Your task to perform on an android device: Go to Yahoo.com Image 0: 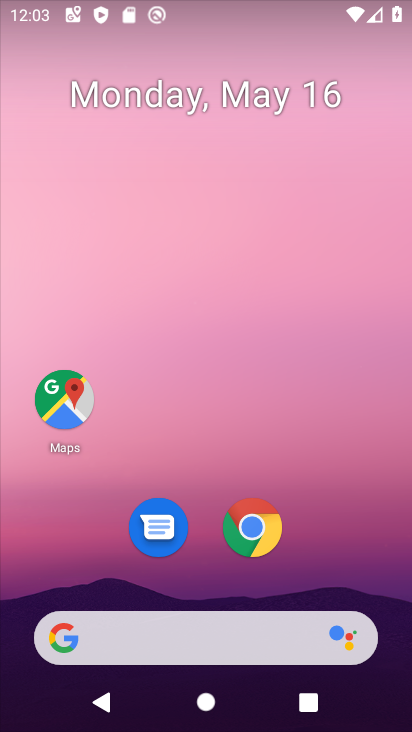
Step 0: click (253, 524)
Your task to perform on an android device: Go to Yahoo.com Image 1: 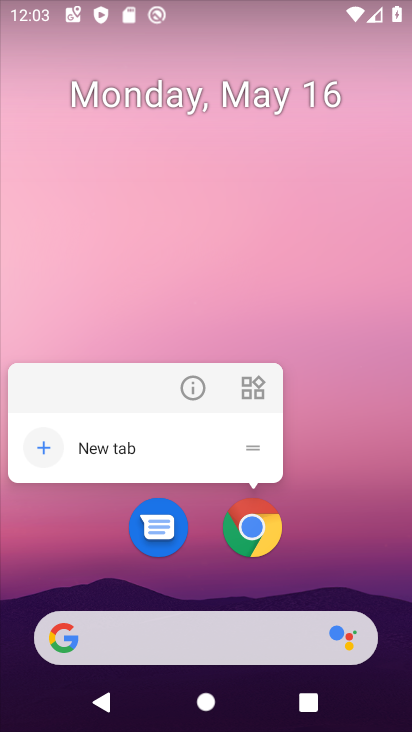
Step 1: click (265, 543)
Your task to perform on an android device: Go to Yahoo.com Image 2: 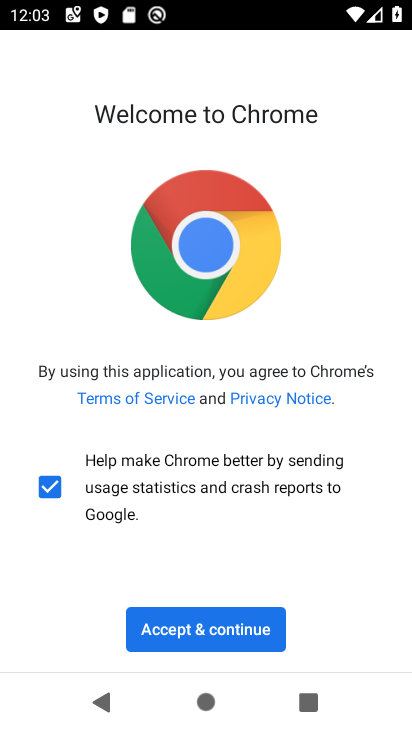
Step 2: click (221, 627)
Your task to perform on an android device: Go to Yahoo.com Image 3: 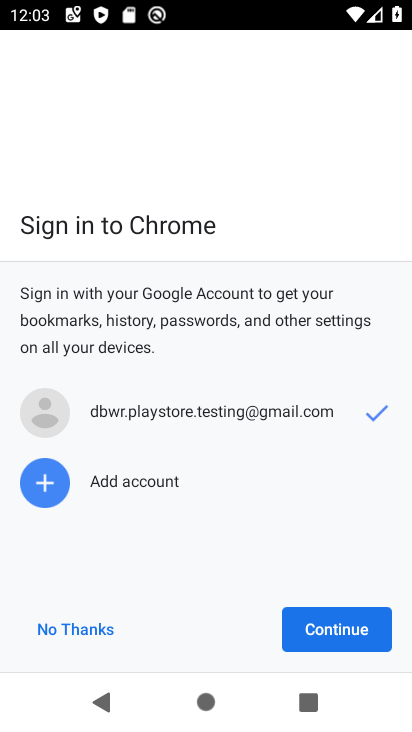
Step 3: click (350, 627)
Your task to perform on an android device: Go to Yahoo.com Image 4: 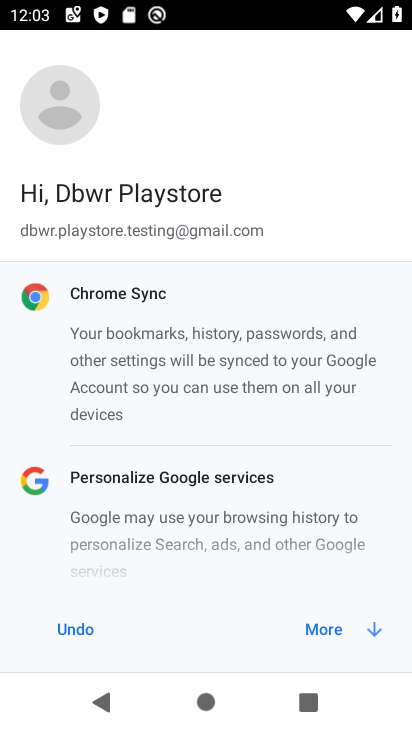
Step 4: click (355, 631)
Your task to perform on an android device: Go to Yahoo.com Image 5: 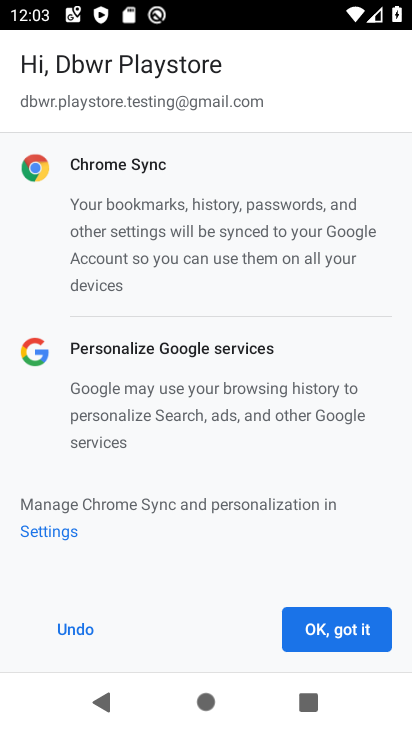
Step 5: click (330, 625)
Your task to perform on an android device: Go to Yahoo.com Image 6: 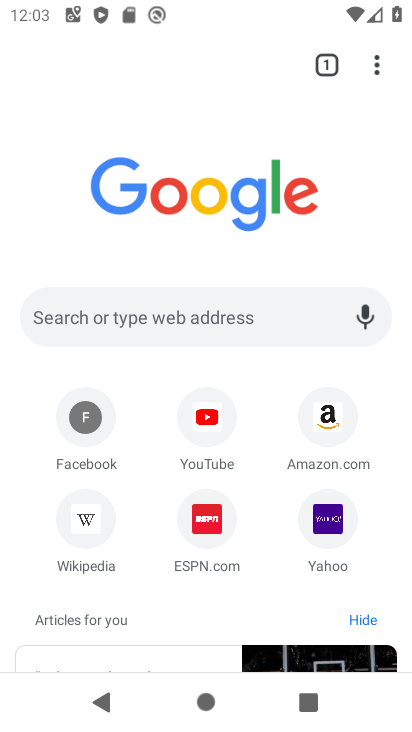
Step 6: click (341, 539)
Your task to perform on an android device: Go to Yahoo.com Image 7: 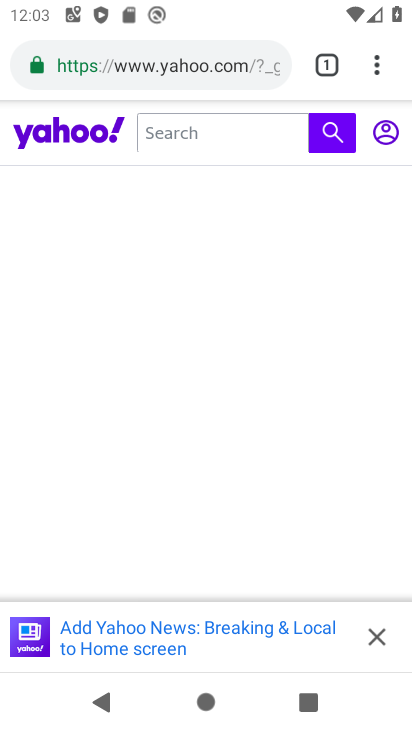
Step 7: task complete